Your task to perform on an android device: Go to accessibility settings Image 0: 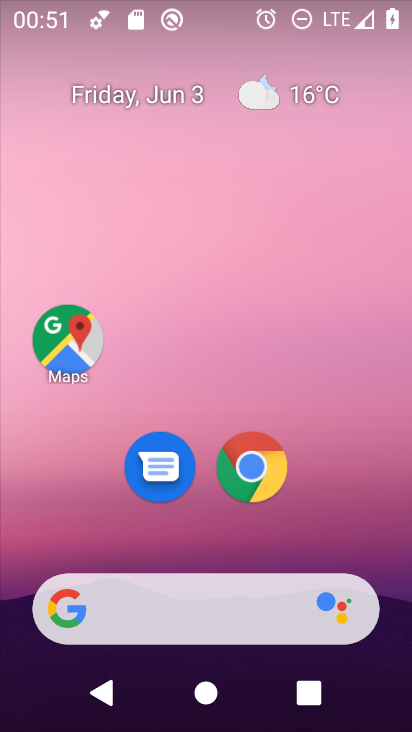
Step 0: drag from (390, 614) to (338, 17)
Your task to perform on an android device: Go to accessibility settings Image 1: 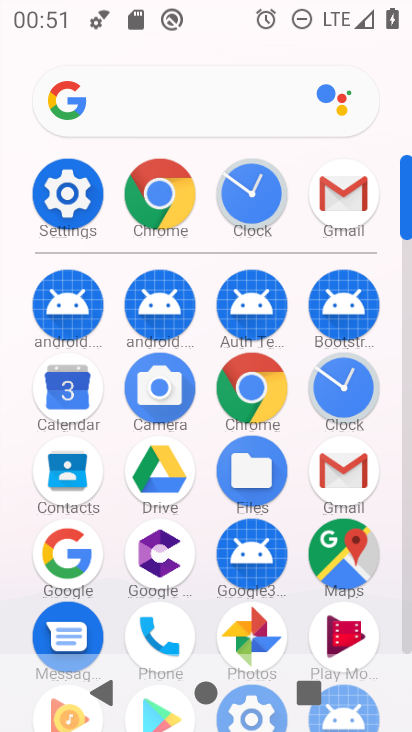
Step 1: click (406, 625)
Your task to perform on an android device: Go to accessibility settings Image 2: 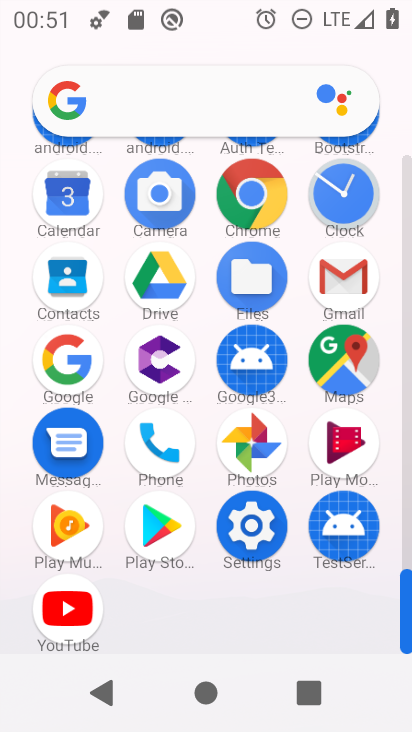
Step 2: click (252, 526)
Your task to perform on an android device: Go to accessibility settings Image 3: 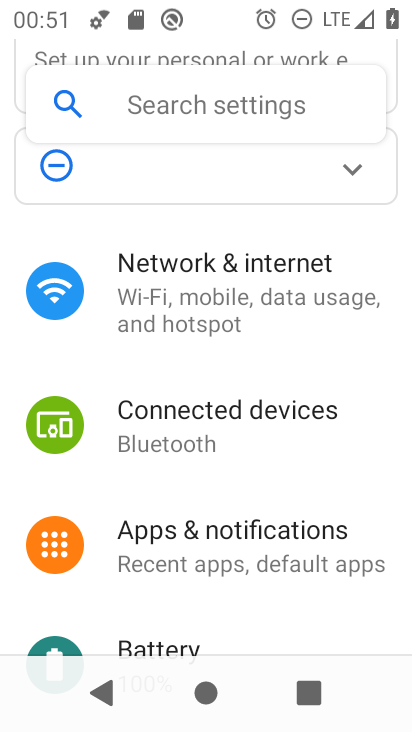
Step 3: drag from (318, 585) to (277, 234)
Your task to perform on an android device: Go to accessibility settings Image 4: 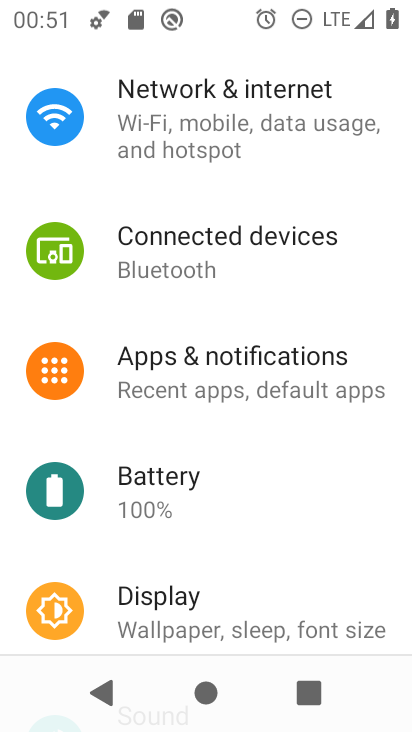
Step 4: drag from (343, 606) to (266, 124)
Your task to perform on an android device: Go to accessibility settings Image 5: 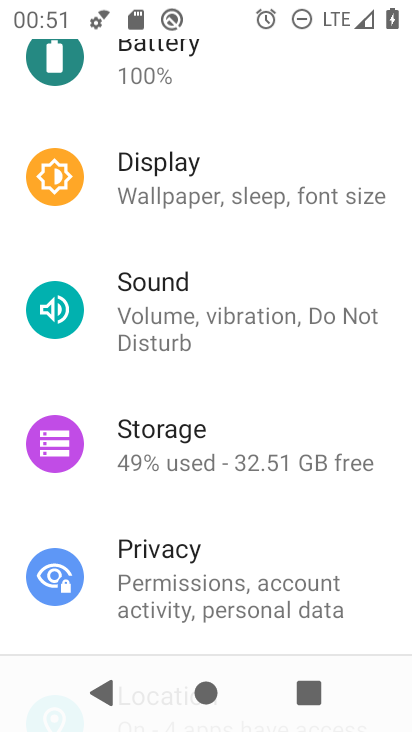
Step 5: drag from (313, 537) to (251, 170)
Your task to perform on an android device: Go to accessibility settings Image 6: 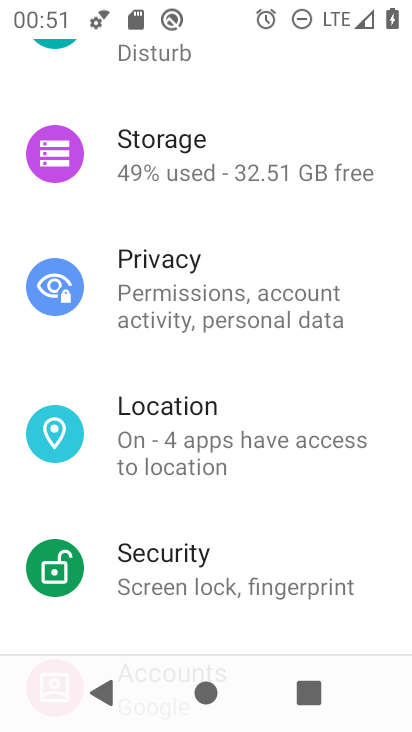
Step 6: drag from (310, 555) to (217, 13)
Your task to perform on an android device: Go to accessibility settings Image 7: 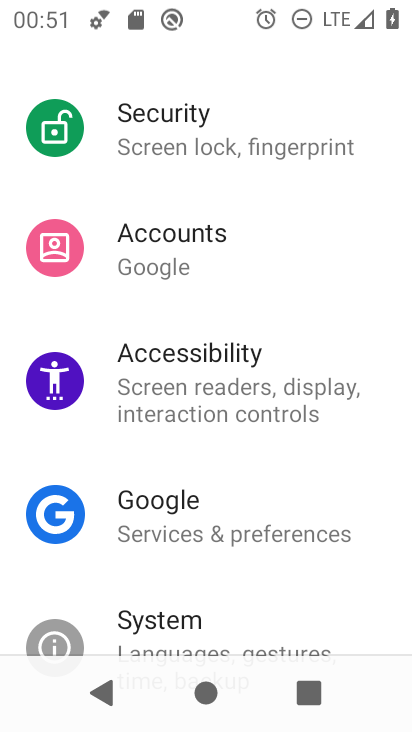
Step 7: click (171, 388)
Your task to perform on an android device: Go to accessibility settings Image 8: 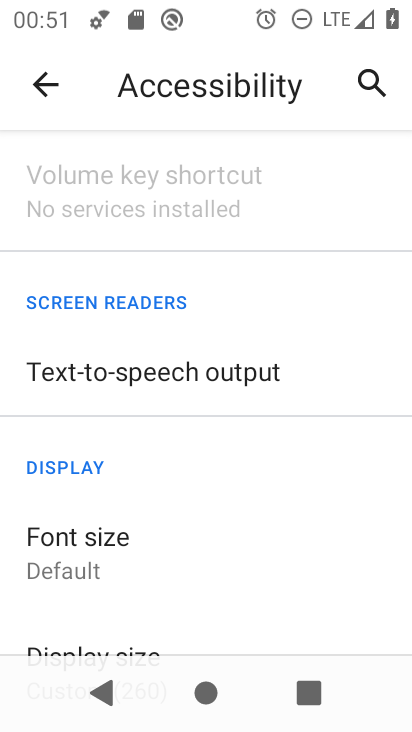
Step 8: task complete